Your task to perform on an android device: clear history in the chrome app Image 0: 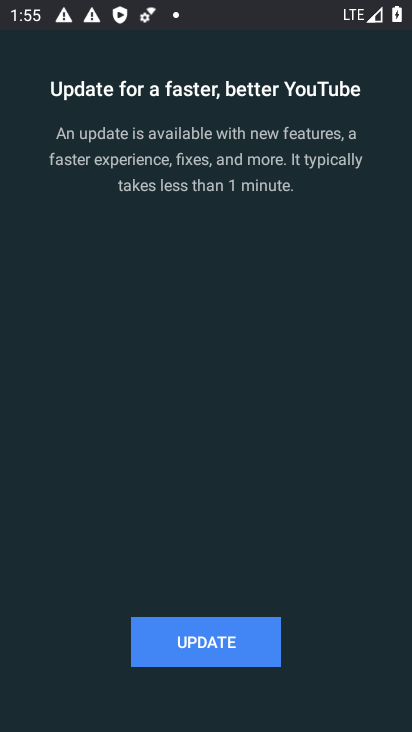
Step 0: press back button
Your task to perform on an android device: clear history in the chrome app Image 1: 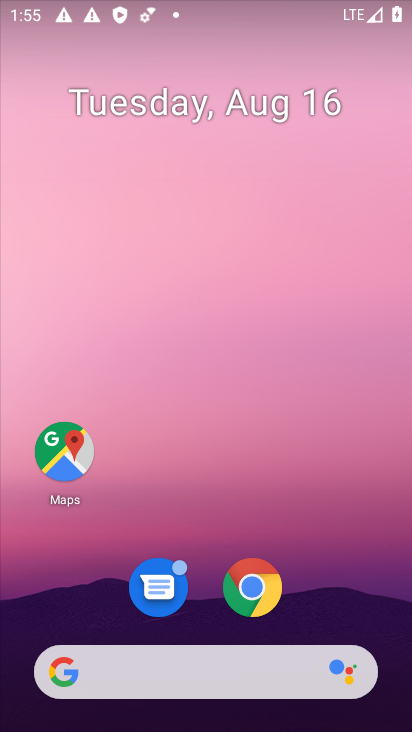
Step 1: click (259, 585)
Your task to perform on an android device: clear history in the chrome app Image 2: 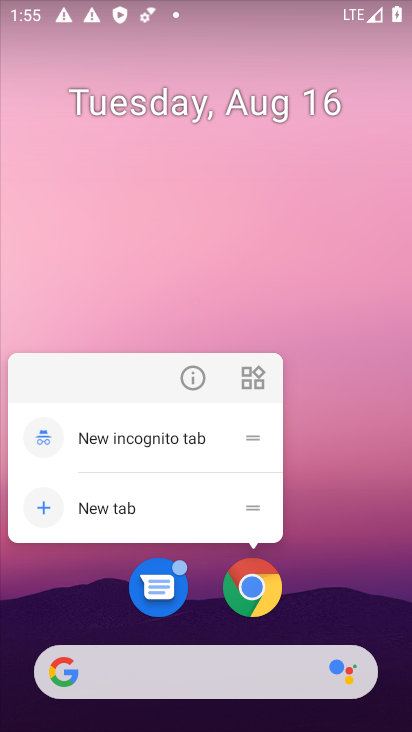
Step 2: click (254, 587)
Your task to perform on an android device: clear history in the chrome app Image 3: 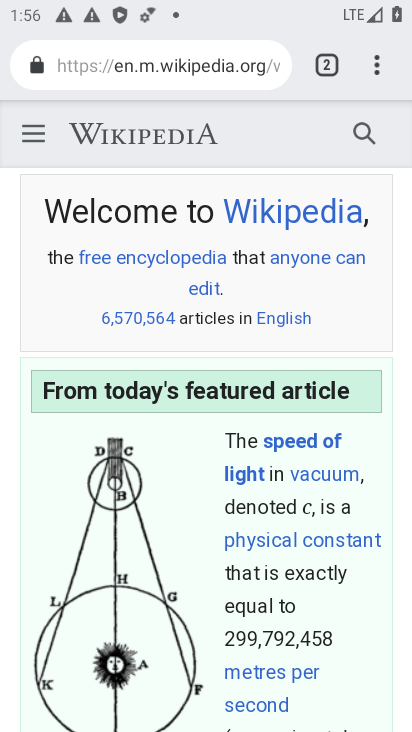
Step 3: drag from (379, 59) to (191, 351)
Your task to perform on an android device: clear history in the chrome app Image 4: 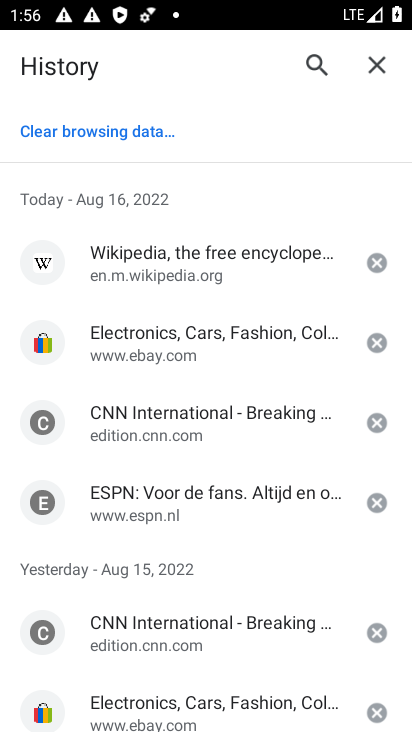
Step 4: click (91, 115)
Your task to perform on an android device: clear history in the chrome app Image 5: 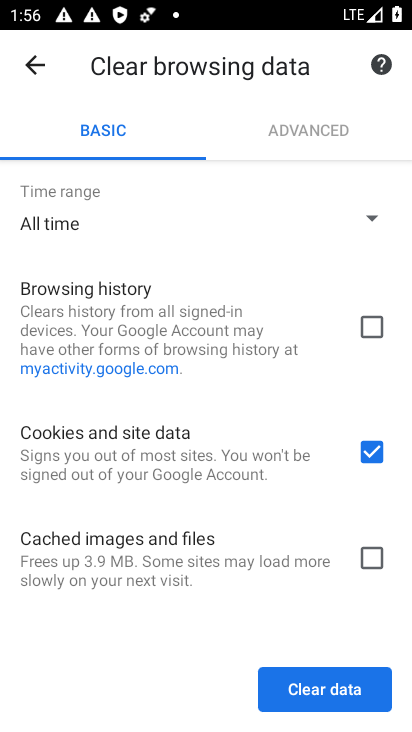
Step 5: click (389, 323)
Your task to perform on an android device: clear history in the chrome app Image 6: 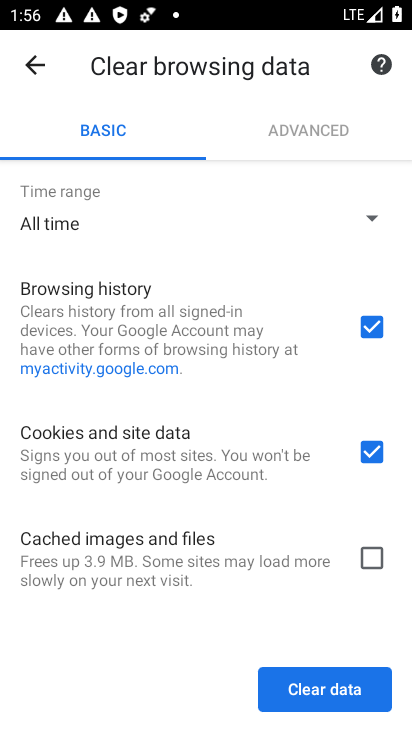
Step 6: click (372, 565)
Your task to perform on an android device: clear history in the chrome app Image 7: 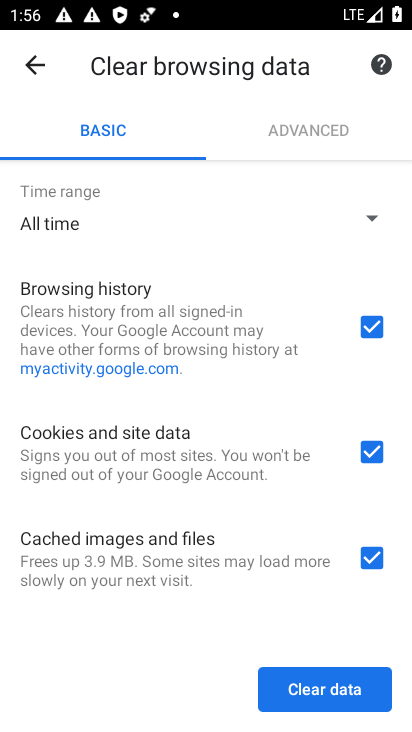
Step 7: click (296, 685)
Your task to perform on an android device: clear history in the chrome app Image 8: 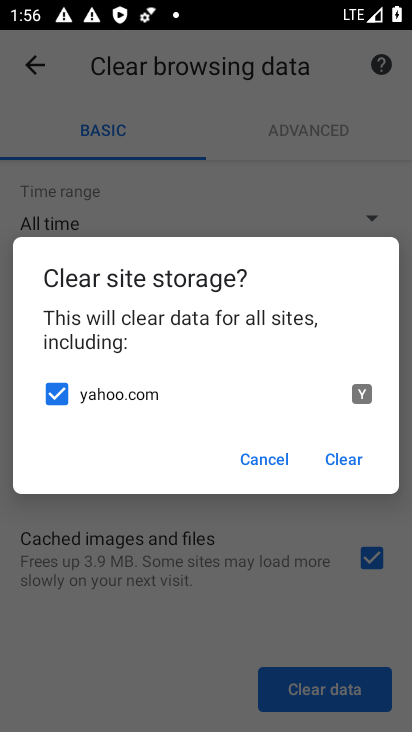
Step 8: click (330, 459)
Your task to perform on an android device: clear history in the chrome app Image 9: 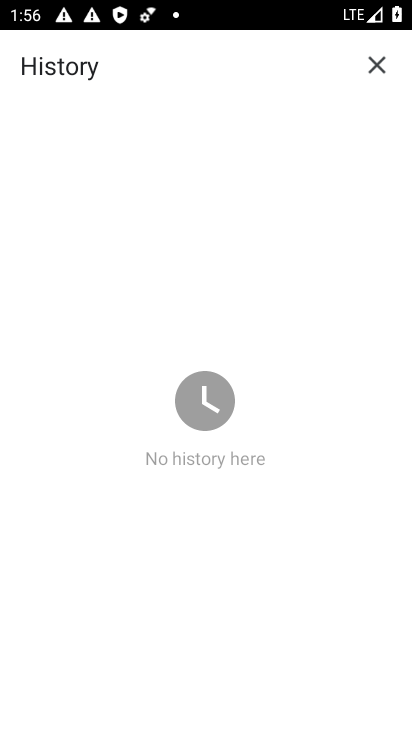
Step 9: task complete